Your task to perform on an android device: Open Amazon Image 0: 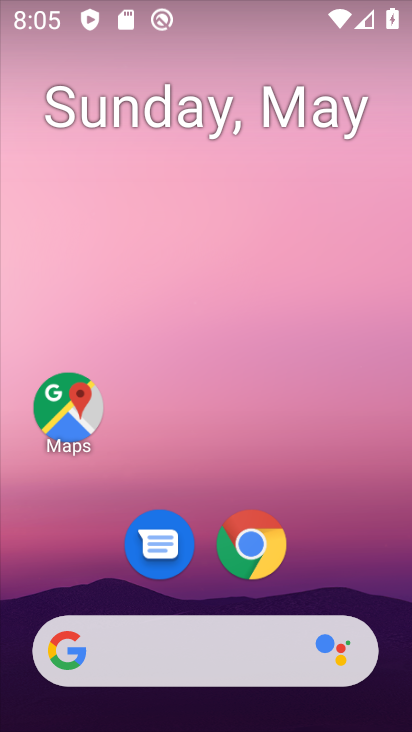
Step 0: drag from (337, 522) to (266, 9)
Your task to perform on an android device: Open Amazon Image 1: 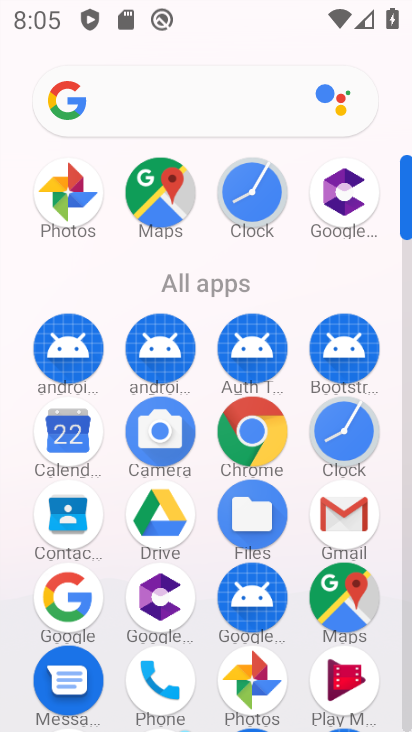
Step 1: drag from (9, 569) to (13, 188)
Your task to perform on an android device: Open Amazon Image 2: 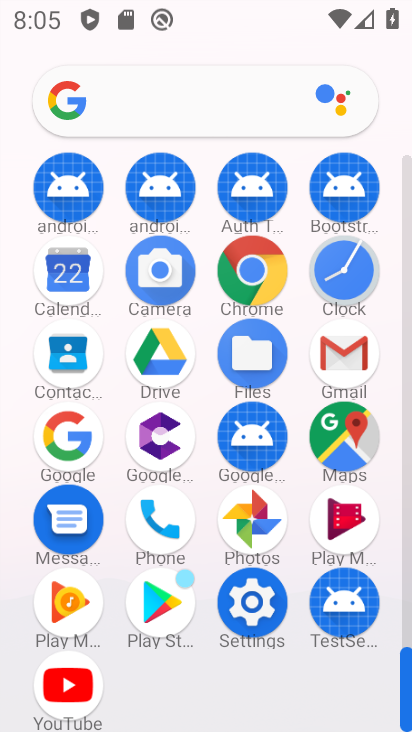
Step 2: click (249, 267)
Your task to perform on an android device: Open Amazon Image 3: 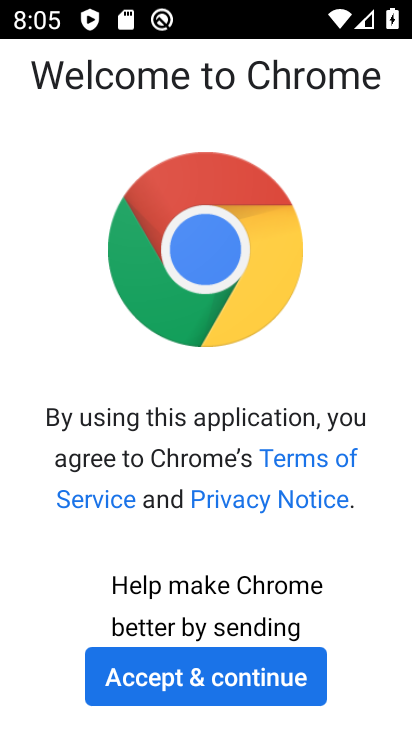
Step 3: click (236, 656)
Your task to perform on an android device: Open Amazon Image 4: 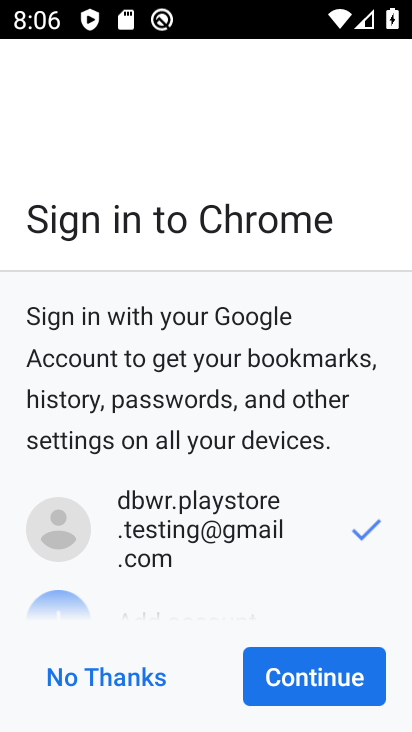
Step 4: click (291, 697)
Your task to perform on an android device: Open Amazon Image 5: 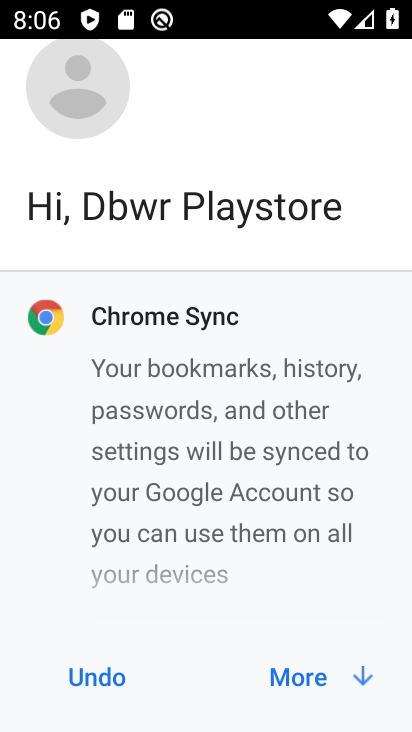
Step 5: click (292, 677)
Your task to perform on an android device: Open Amazon Image 6: 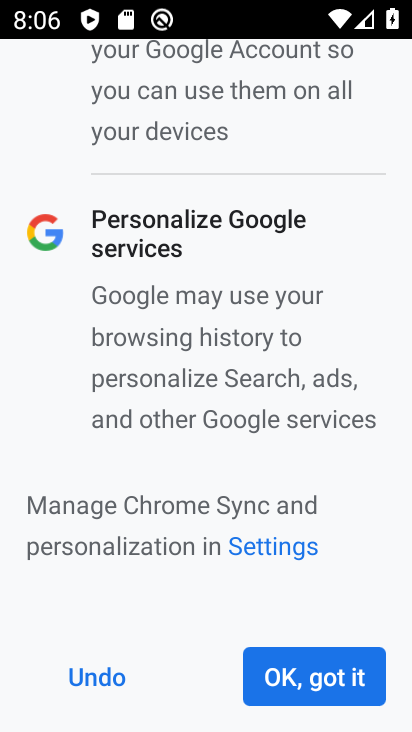
Step 6: click (296, 665)
Your task to perform on an android device: Open Amazon Image 7: 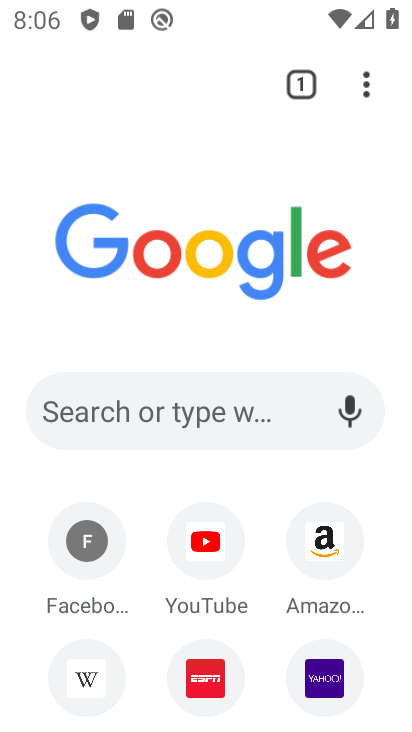
Step 7: drag from (27, 589) to (29, 396)
Your task to perform on an android device: Open Amazon Image 8: 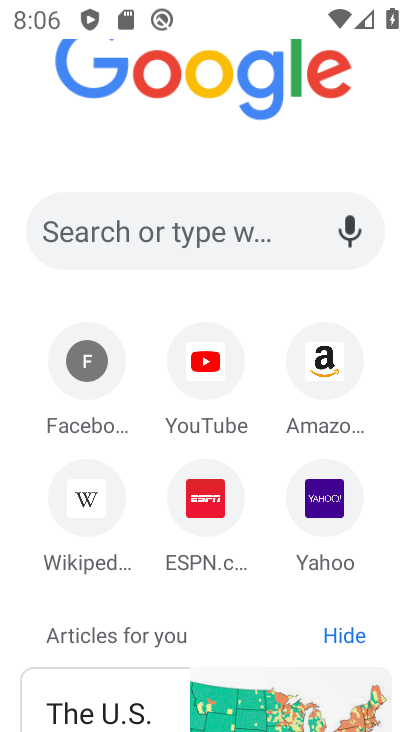
Step 8: click (320, 352)
Your task to perform on an android device: Open Amazon Image 9: 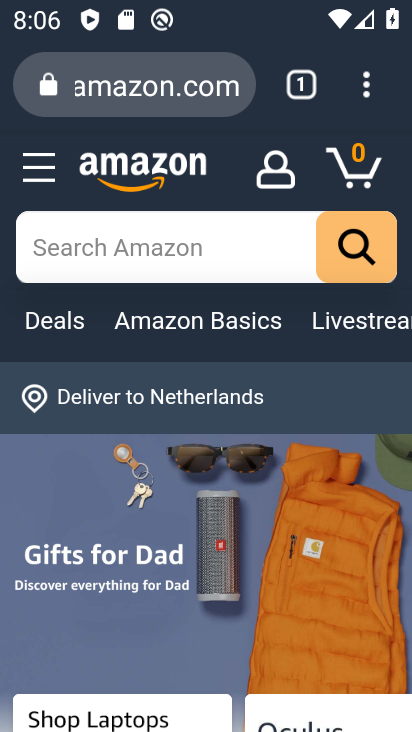
Step 9: task complete